Your task to perform on an android device: Open sound settings Image 0: 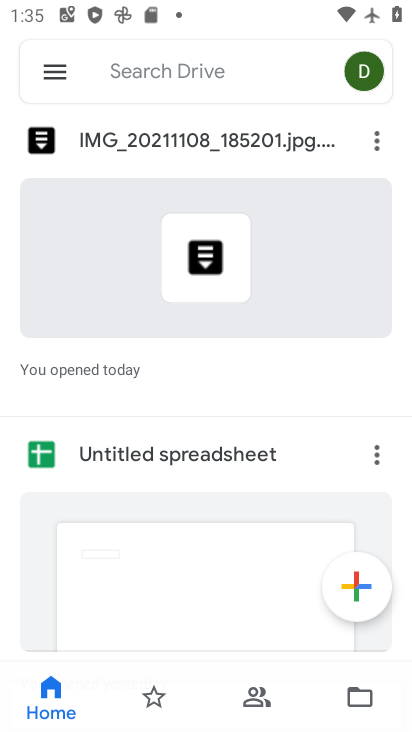
Step 0: press home button
Your task to perform on an android device: Open sound settings Image 1: 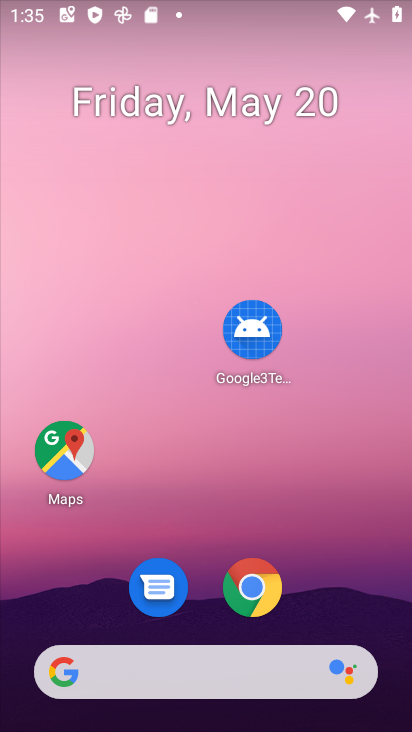
Step 1: drag from (314, 510) to (294, 37)
Your task to perform on an android device: Open sound settings Image 2: 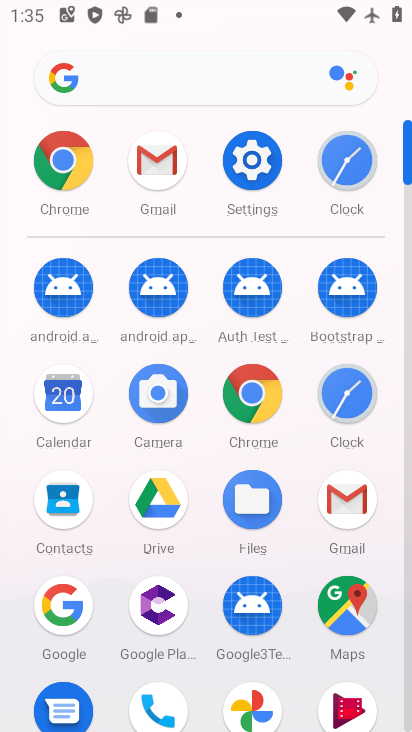
Step 2: click (252, 154)
Your task to perform on an android device: Open sound settings Image 3: 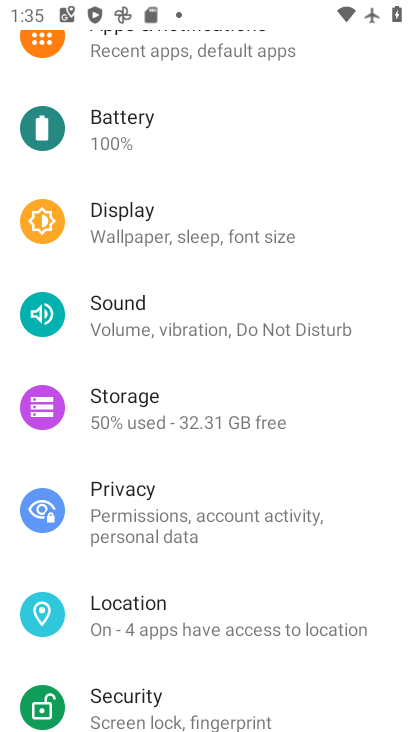
Step 3: click (116, 305)
Your task to perform on an android device: Open sound settings Image 4: 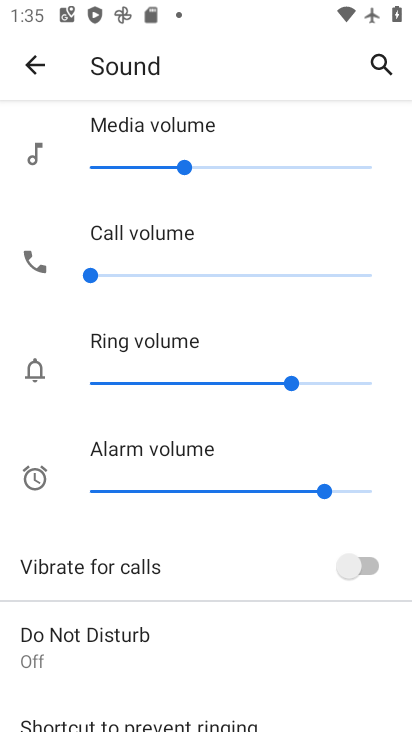
Step 4: task complete